Your task to perform on an android device: Open sound settings Image 0: 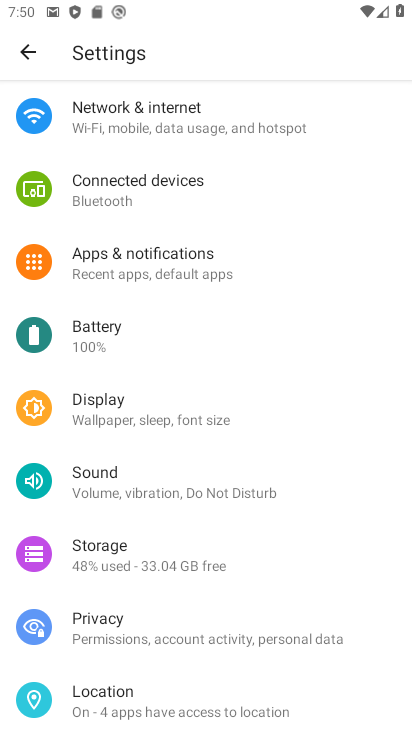
Step 0: click (152, 486)
Your task to perform on an android device: Open sound settings Image 1: 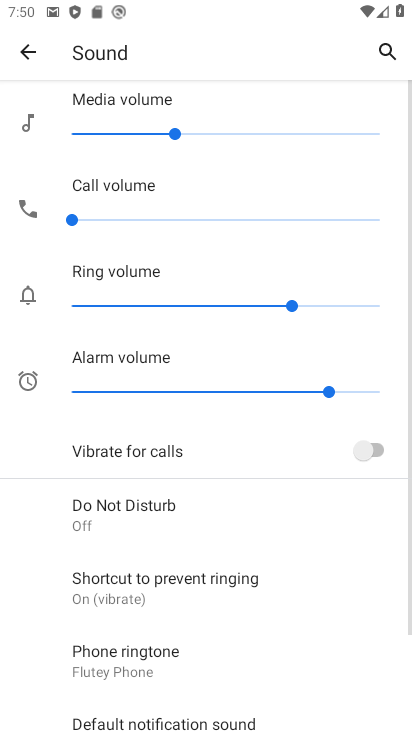
Step 1: task complete